Your task to perform on an android device: Open Android settings Image 0: 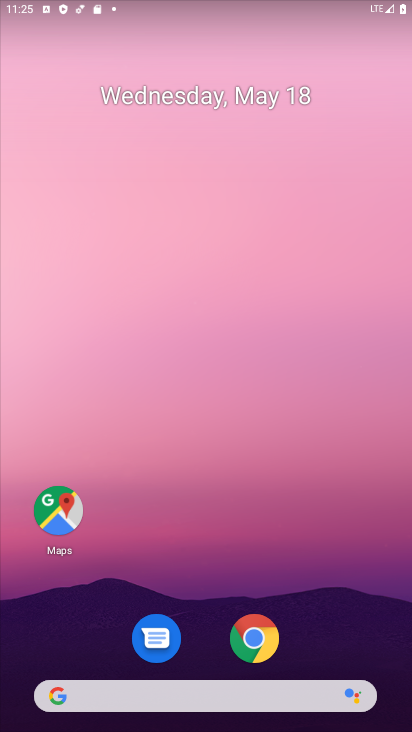
Step 0: drag from (344, 639) to (282, 2)
Your task to perform on an android device: Open Android settings Image 1: 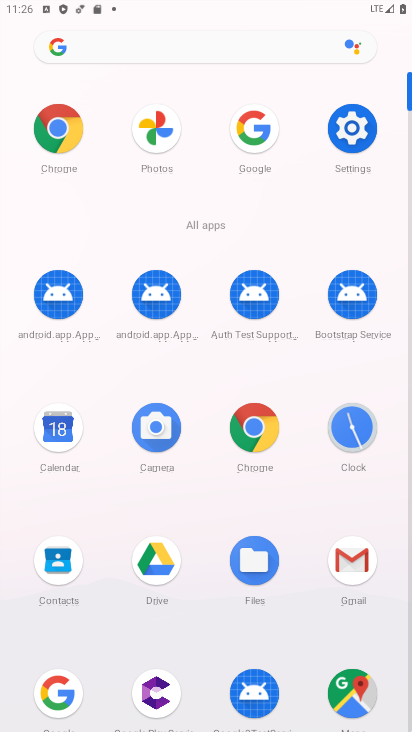
Step 1: click (363, 118)
Your task to perform on an android device: Open Android settings Image 2: 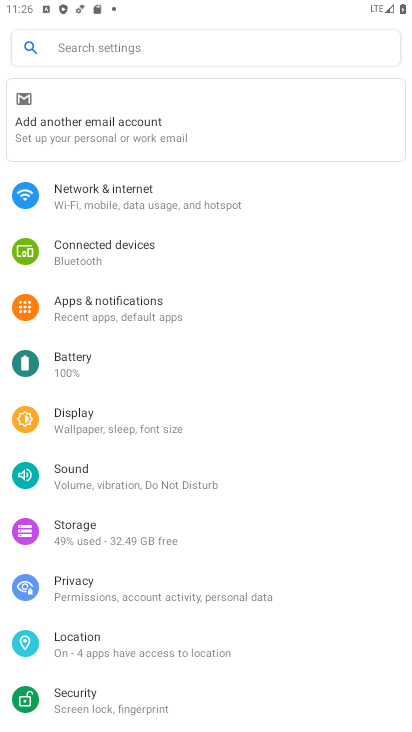
Step 2: drag from (154, 658) to (210, 113)
Your task to perform on an android device: Open Android settings Image 3: 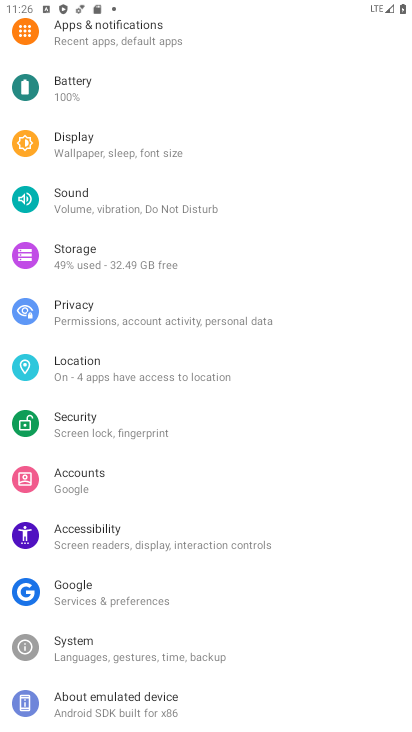
Step 3: click (147, 691)
Your task to perform on an android device: Open Android settings Image 4: 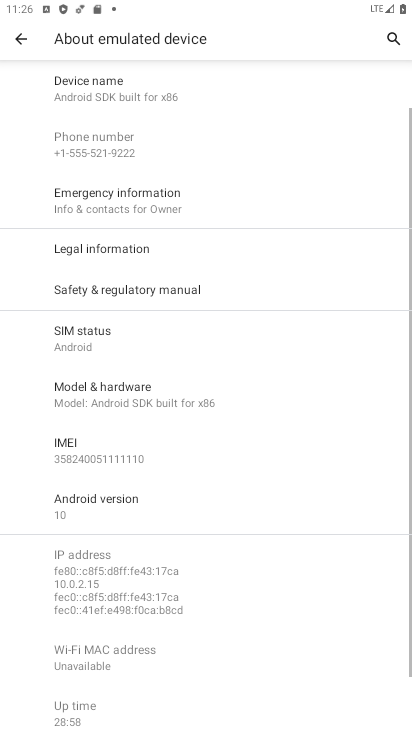
Step 4: click (163, 515)
Your task to perform on an android device: Open Android settings Image 5: 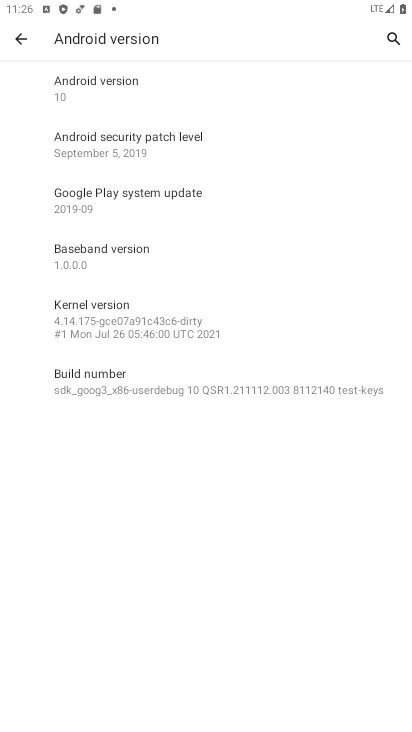
Step 5: task complete